Your task to perform on an android device: What's the weather? Image 0: 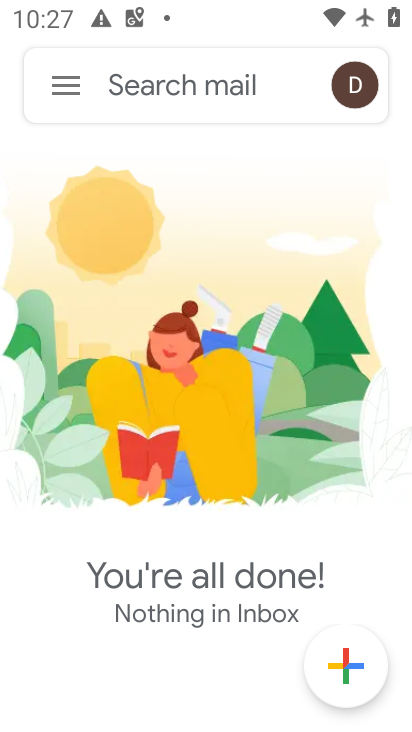
Step 0: press home button
Your task to perform on an android device: What's the weather? Image 1: 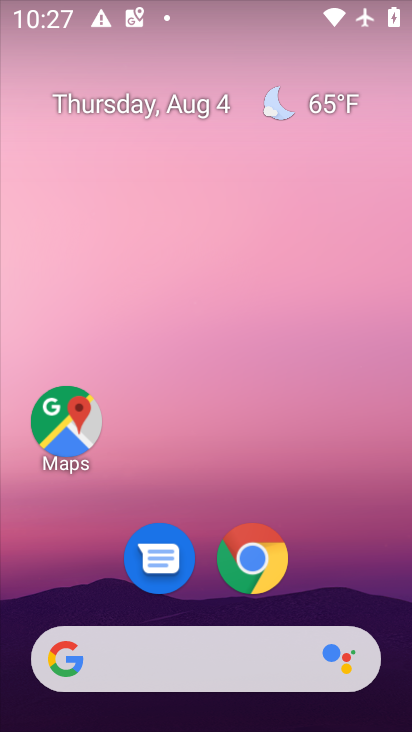
Step 1: click (330, 97)
Your task to perform on an android device: What's the weather? Image 2: 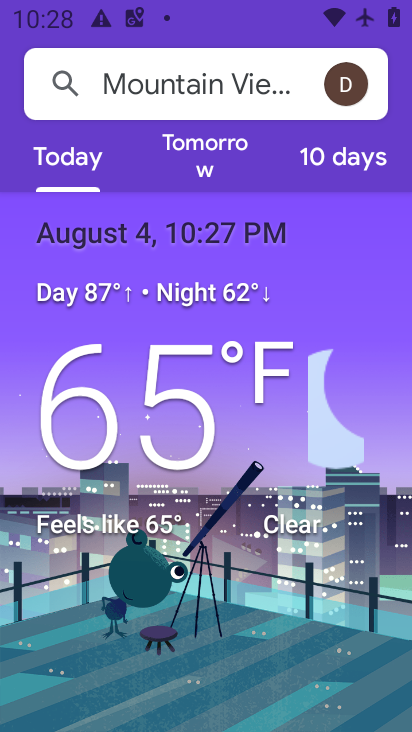
Step 2: task complete